Your task to perform on an android device: open app "Cash App" Image 0: 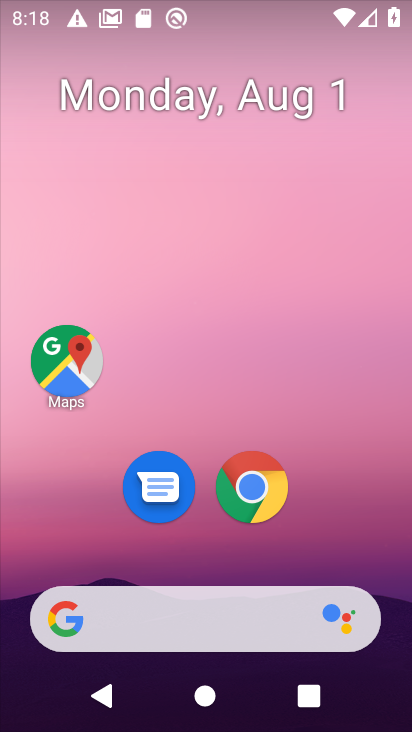
Step 0: press home button
Your task to perform on an android device: open app "Cash App" Image 1: 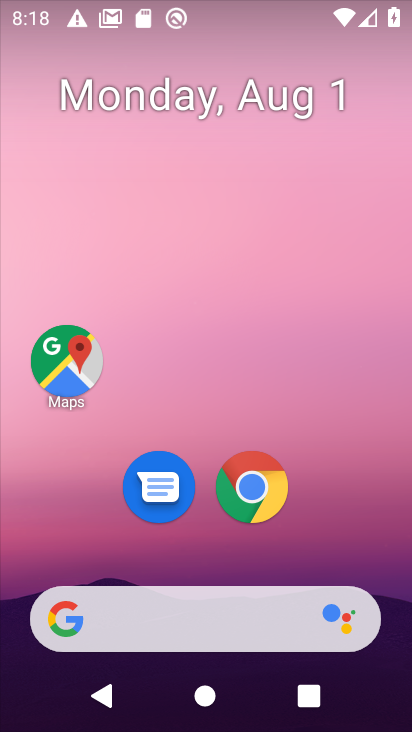
Step 1: drag from (374, 542) to (358, 80)
Your task to perform on an android device: open app "Cash App" Image 2: 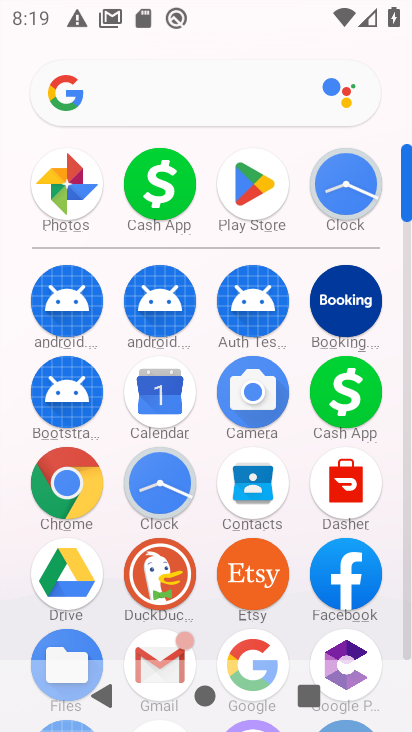
Step 2: click (263, 186)
Your task to perform on an android device: open app "Cash App" Image 3: 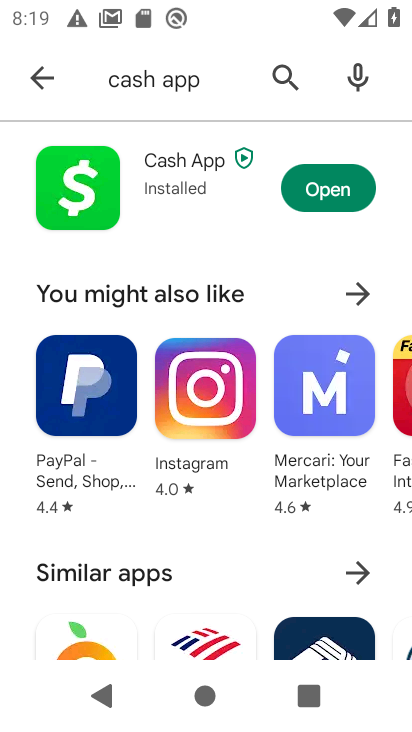
Step 3: click (328, 188)
Your task to perform on an android device: open app "Cash App" Image 4: 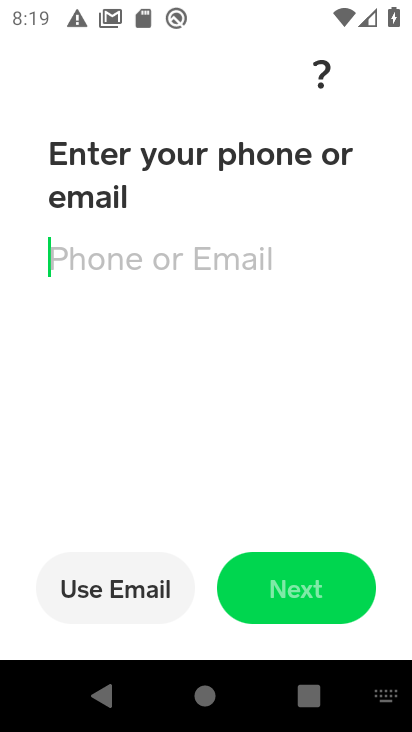
Step 4: task complete